Your task to perform on an android device: What's on my calendar today? Image 0: 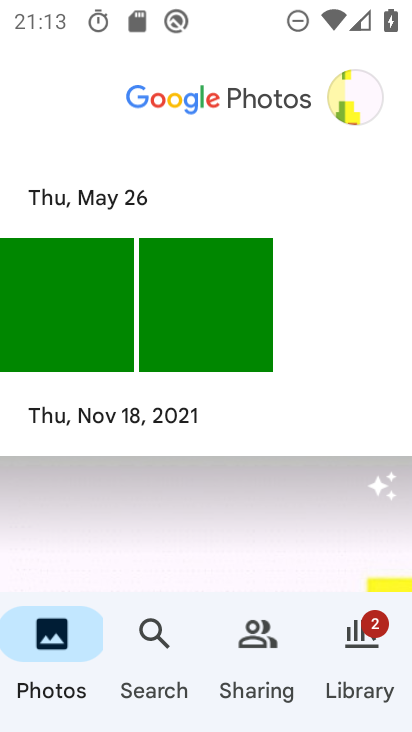
Step 0: press home button
Your task to perform on an android device: What's on my calendar today? Image 1: 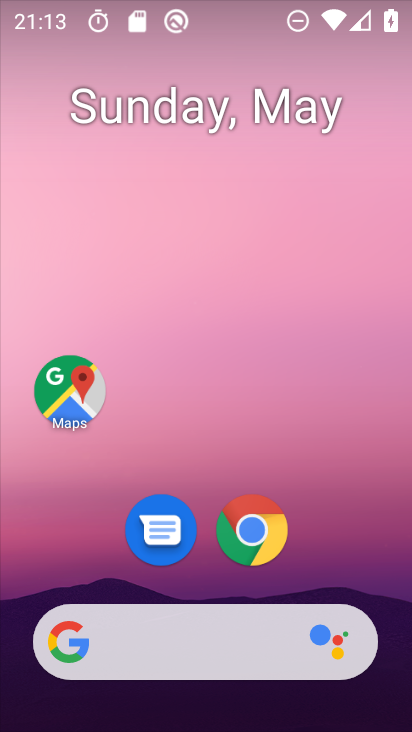
Step 1: drag from (224, 683) to (315, 108)
Your task to perform on an android device: What's on my calendar today? Image 2: 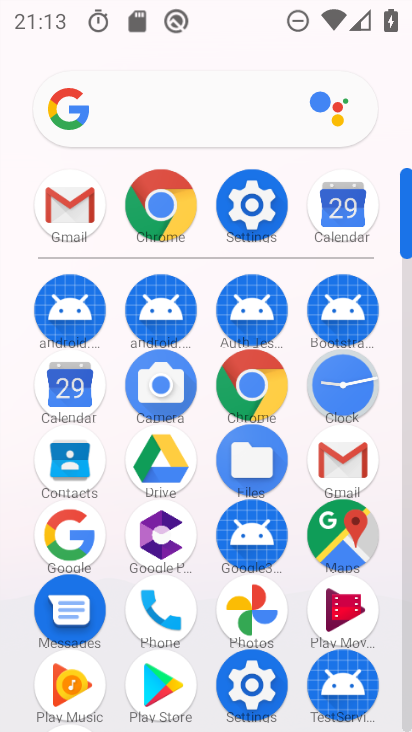
Step 2: click (84, 389)
Your task to perform on an android device: What's on my calendar today? Image 3: 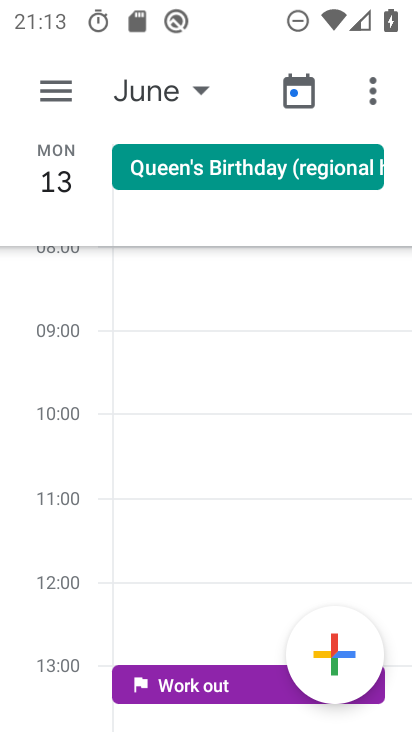
Step 3: click (55, 99)
Your task to perform on an android device: What's on my calendar today? Image 4: 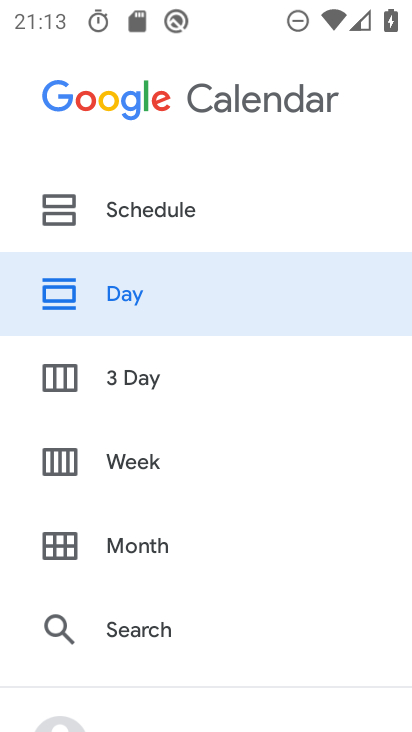
Step 4: click (135, 316)
Your task to perform on an android device: What's on my calendar today? Image 5: 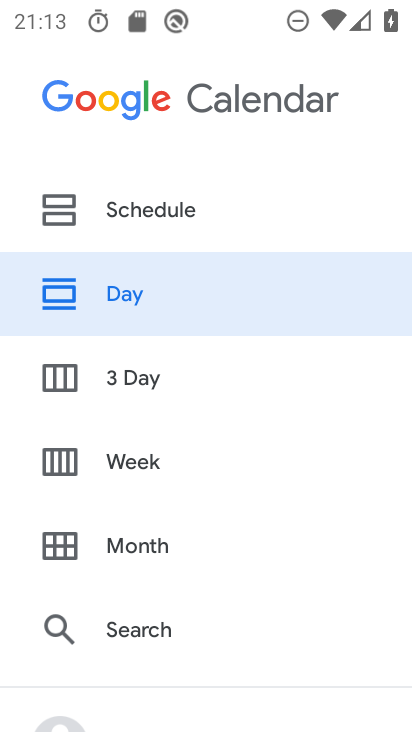
Step 5: drag from (151, 500) to (187, 440)
Your task to perform on an android device: What's on my calendar today? Image 6: 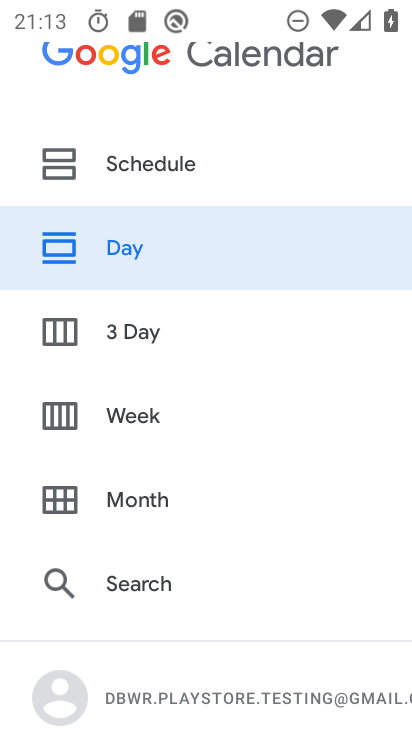
Step 6: click (134, 168)
Your task to perform on an android device: What's on my calendar today? Image 7: 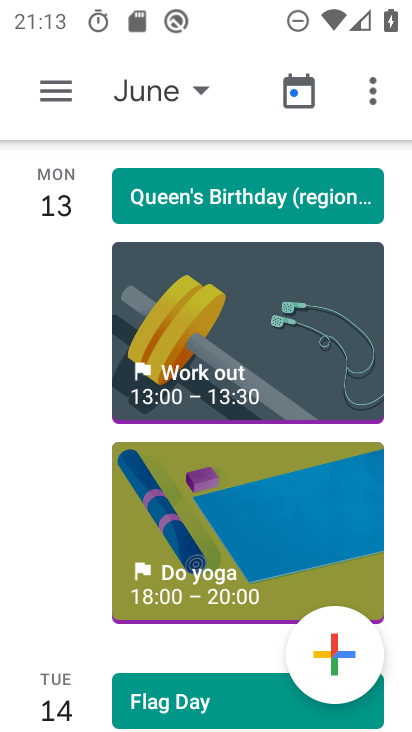
Step 7: click (59, 82)
Your task to perform on an android device: What's on my calendar today? Image 8: 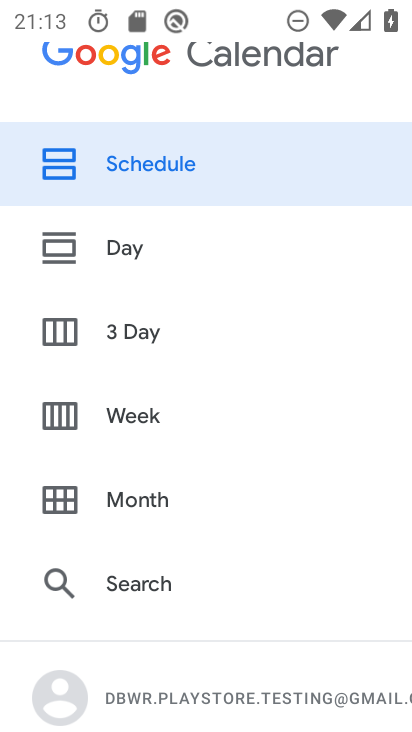
Step 8: click (149, 492)
Your task to perform on an android device: What's on my calendar today? Image 9: 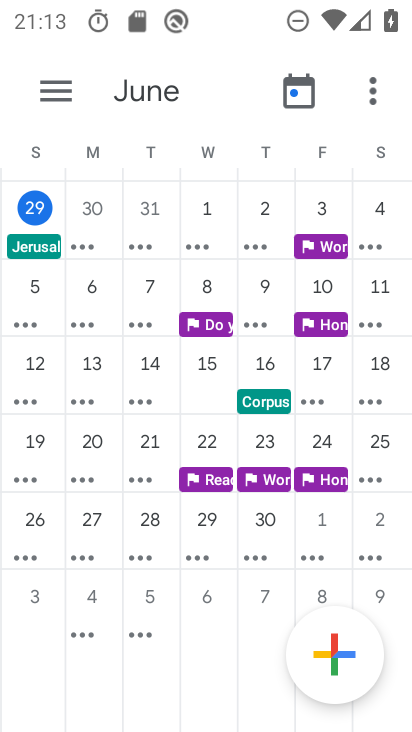
Step 9: drag from (370, 413) to (390, 472)
Your task to perform on an android device: What's on my calendar today? Image 10: 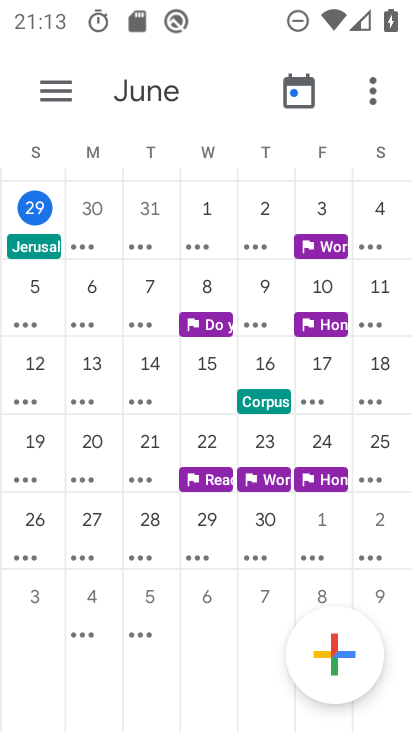
Step 10: drag from (55, 475) to (366, 255)
Your task to perform on an android device: What's on my calendar today? Image 11: 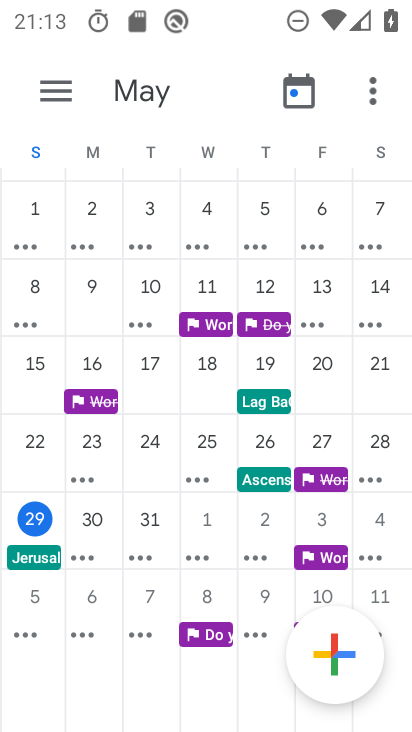
Step 11: click (52, 87)
Your task to perform on an android device: What's on my calendar today? Image 12: 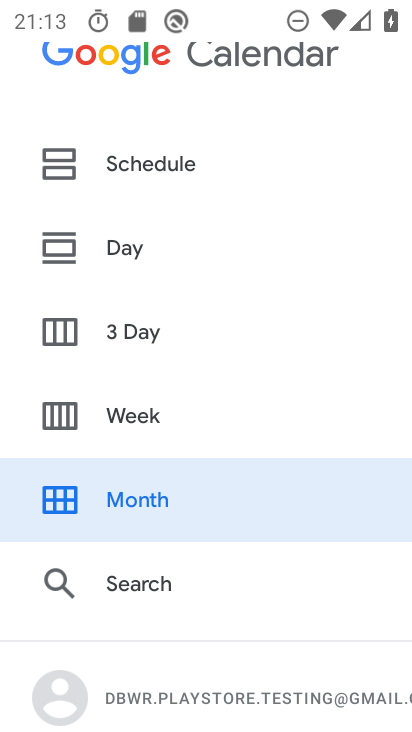
Step 12: click (152, 163)
Your task to perform on an android device: What's on my calendar today? Image 13: 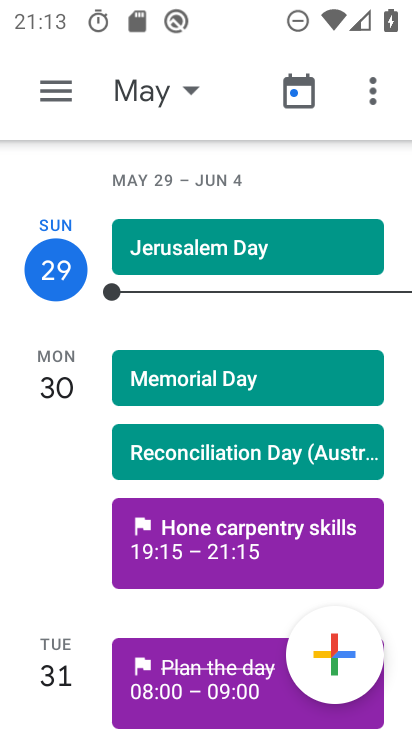
Step 13: task complete